Your task to perform on an android device: turn pop-ups off in chrome Image 0: 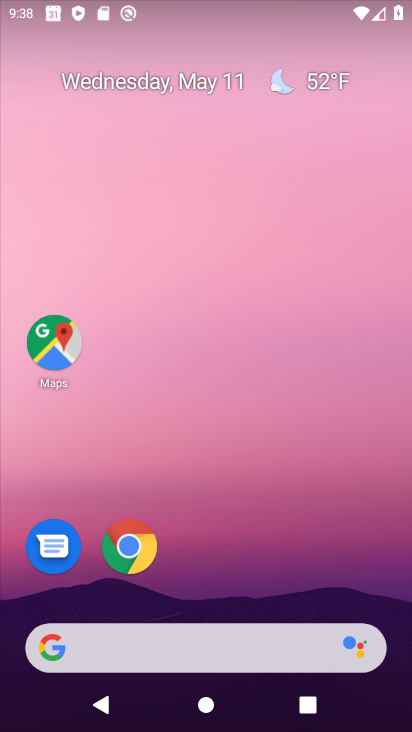
Step 0: click (131, 566)
Your task to perform on an android device: turn pop-ups off in chrome Image 1: 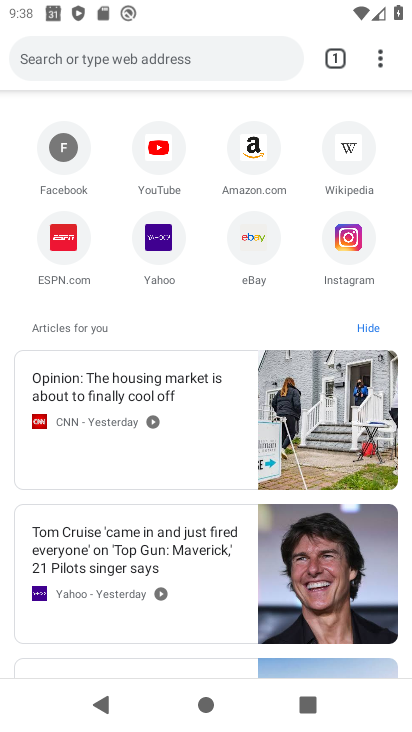
Step 1: drag from (385, 63) to (251, 552)
Your task to perform on an android device: turn pop-ups off in chrome Image 2: 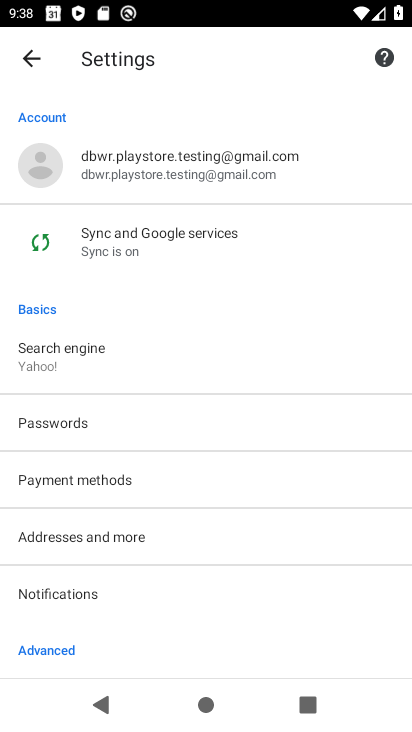
Step 2: drag from (113, 492) to (57, 82)
Your task to perform on an android device: turn pop-ups off in chrome Image 3: 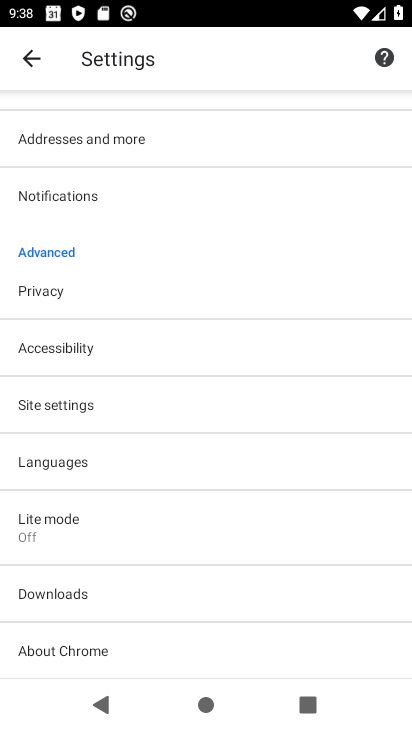
Step 3: click (46, 412)
Your task to perform on an android device: turn pop-ups off in chrome Image 4: 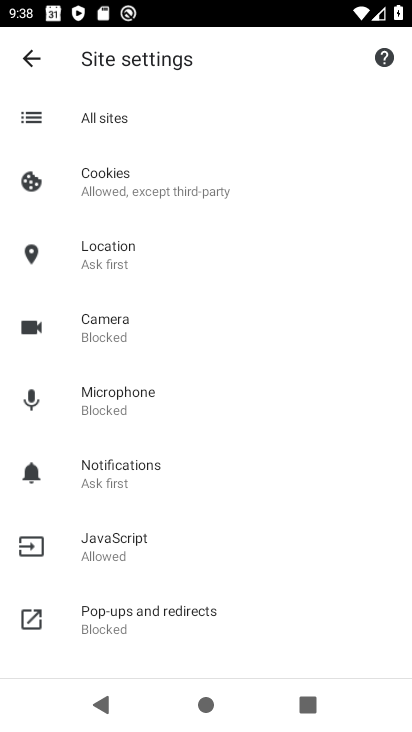
Step 4: click (165, 609)
Your task to perform on an android device: turn pop-ups off in chrome Image 5: 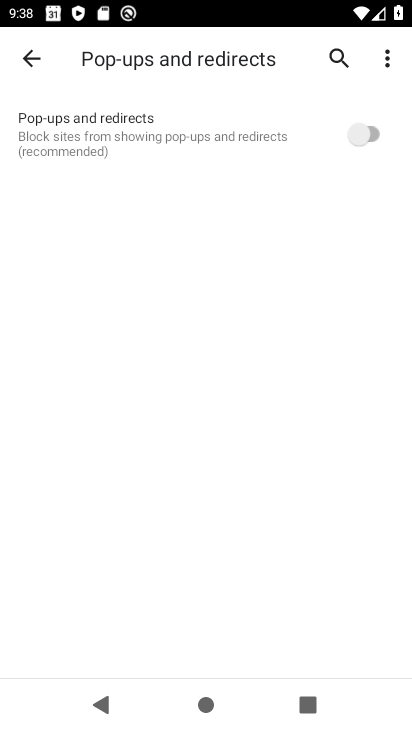
Step 5: task complete